Your task to perform on an android device: Go to wifi settings Image 0: 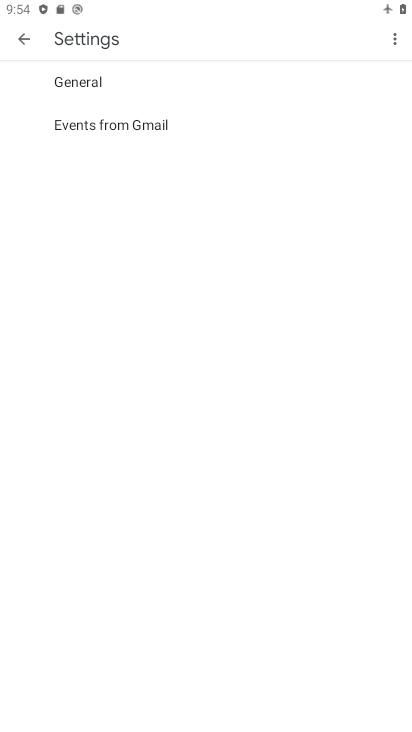
Step 0: press home button
Your task to perform on an android device: Go to wifi settings Image 1: 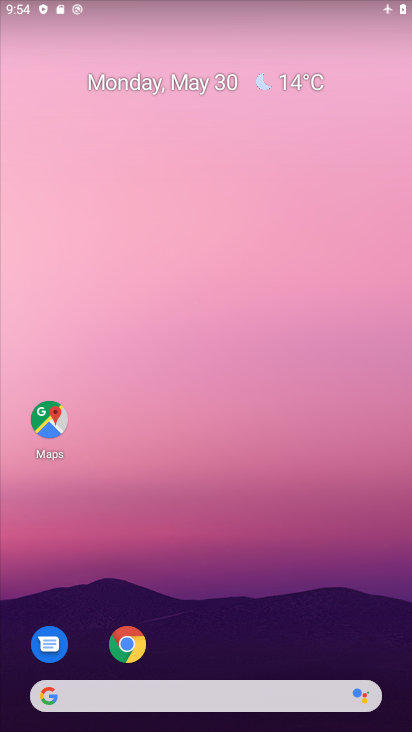
Step 1: drag from (206, 646) to (234, 245)
Your task to perform on an android device: Go to wifi settings Image 2: 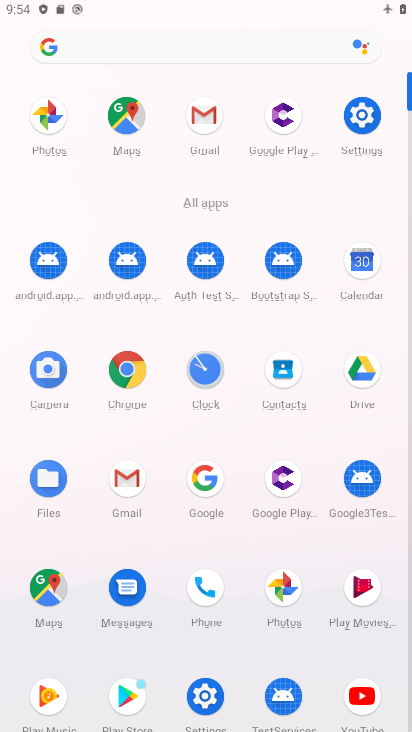
Step 2: click (206, 692)
Your task to perform on an android device: Go to wifi settings Image 3: 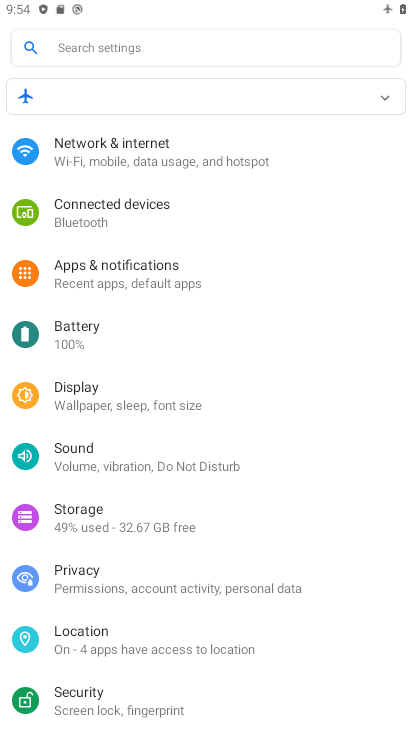
Step 3: click (152, 172)
Your task to perform on an android device: Go to wifi settings Image 4: 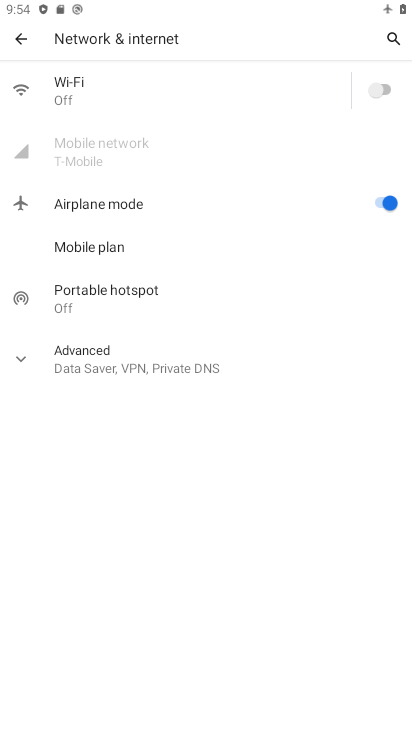
Step 4: click (124, 99)
Your task to perform on an android device: Go to wifi settings Image 5: 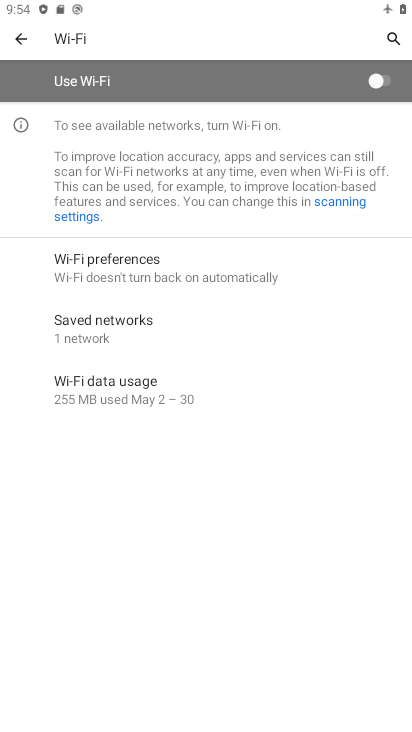
Step 5: task complete